Your task to perform on an android device: open device folders in google photos Image 0: 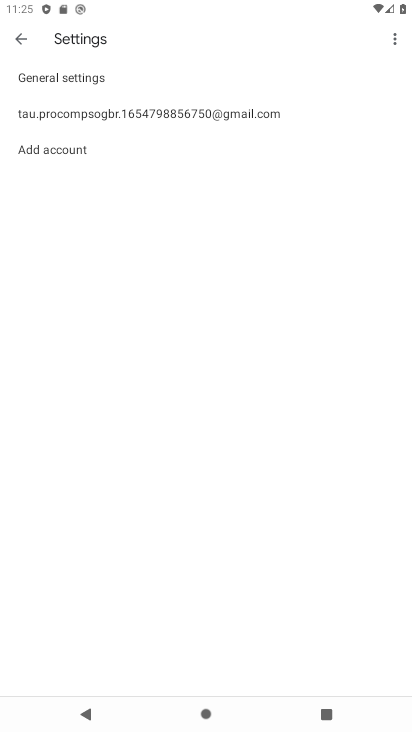
Step 0: press home button
Your task to perform on an android device: open device folders in google photos Image 1: 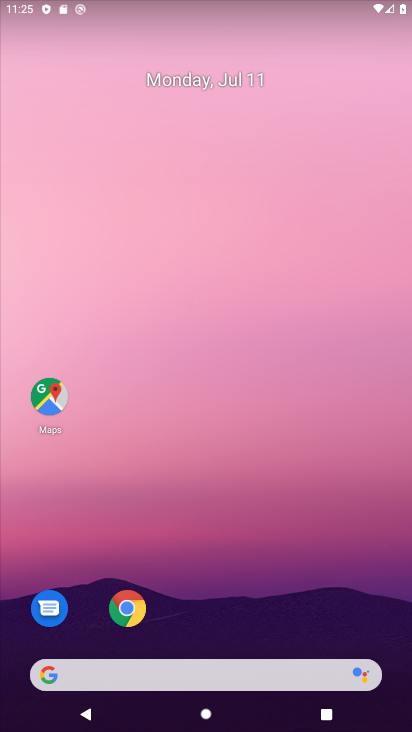
Step 1: click (89, 63)
Your task to perform on an android device: open device folders in google photos Image 2: 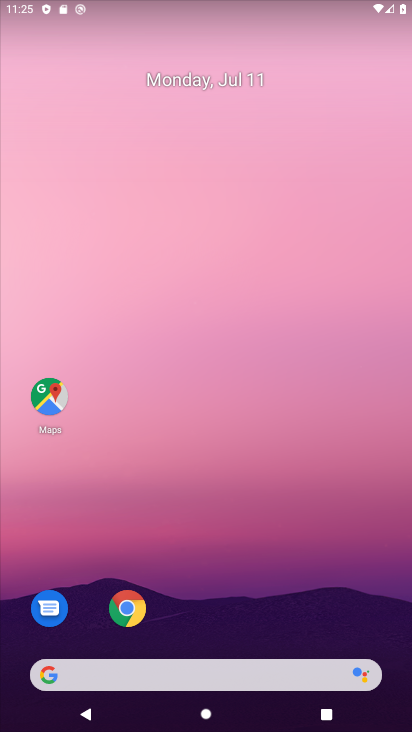
Step 2: drag from (201, 636) to (285, 83)
Your task to perform on an android device: open device folders in google photos Image 3: 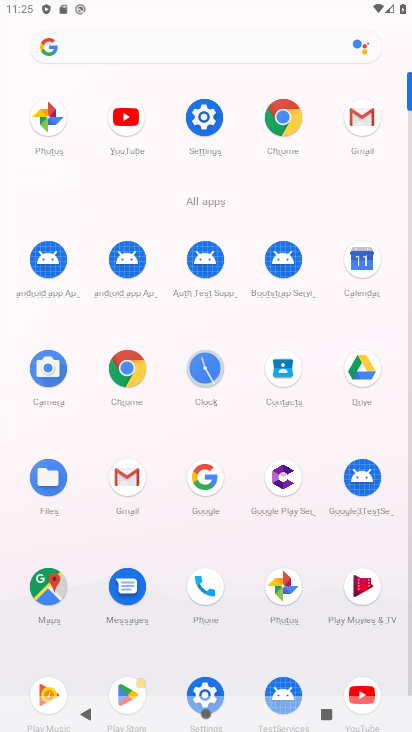
Step 3: click (49, 107)
Your task to perform on an android device: open device folders in google photos Image 4: 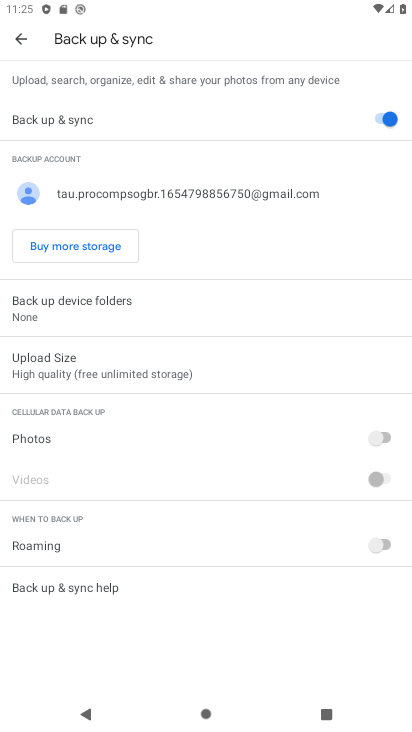
Step 4: click (24, 38)
Your task to perform on an android device: open device folders in google photos Image 5: 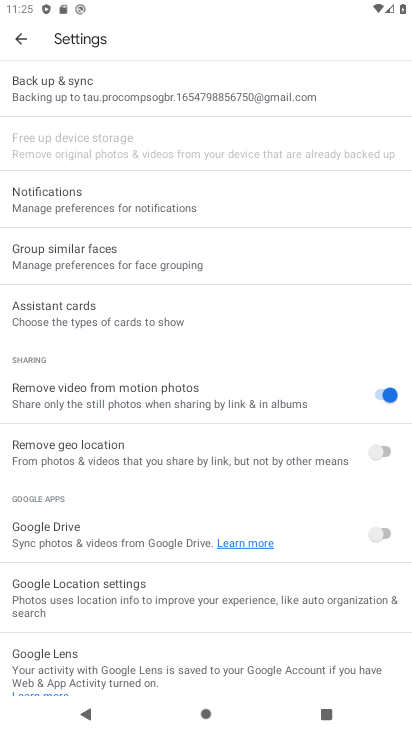
Step 5: click (24, 38)
Your task to perform on an android device: open device folders in google photos Image 6: 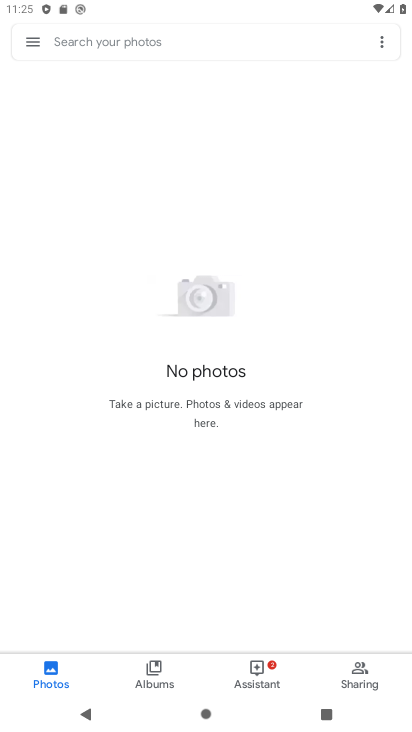
Step 6: click (24, 38)
Your task to perform on an android device: open device folders in google photos Image 7: 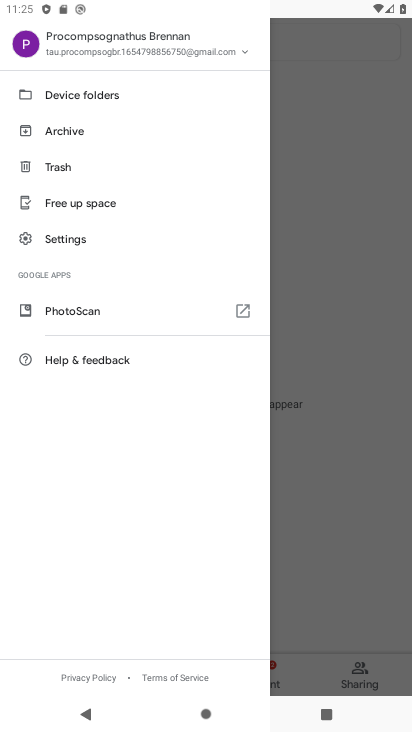
Step 7: click (116, 102)
Your task to perform on an android device: open device folders in google photos Image 8: 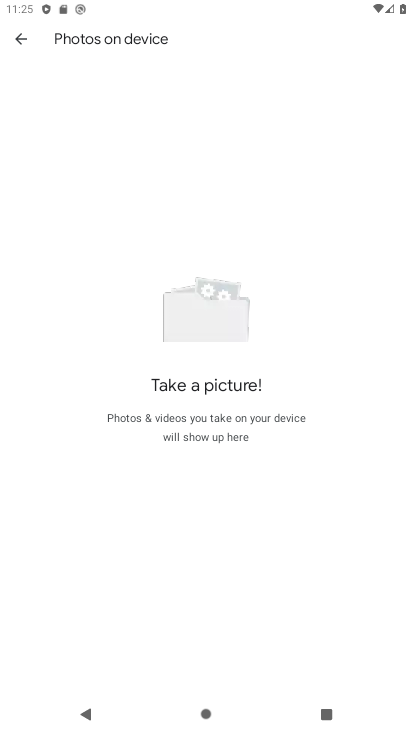
Step 8: task complete